Your task to perform on an android device: turn on bluetooth scan Image 0: 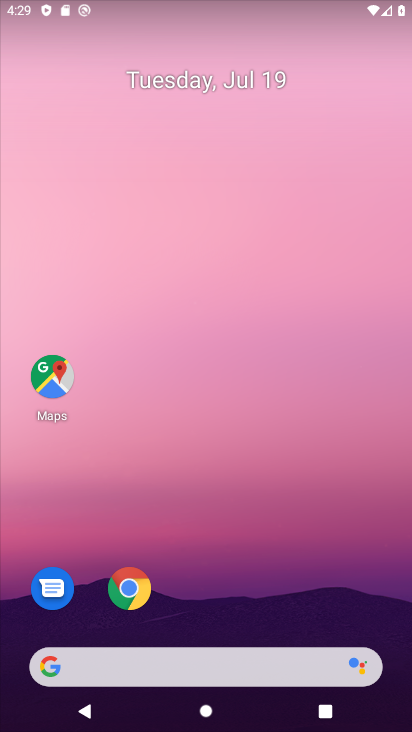
Step 0: drag from (388, 622) to (349, 140)
Your task to perform on an android device: turn on bluetooth scan Image 1: 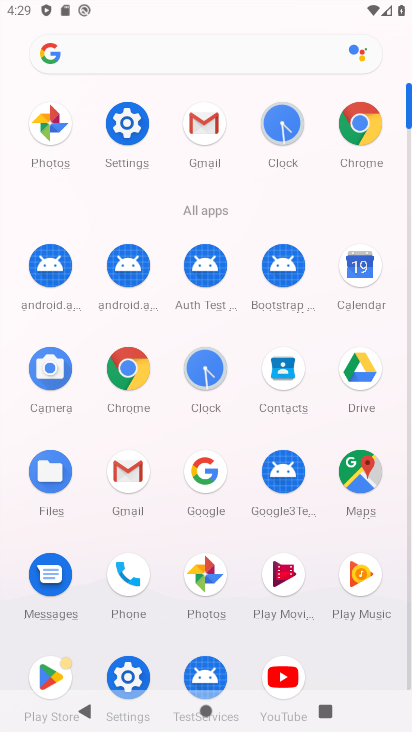
Step 1: click (409, 667)
Your task to perform on an android device: turn on bluetooth scan Image 2: 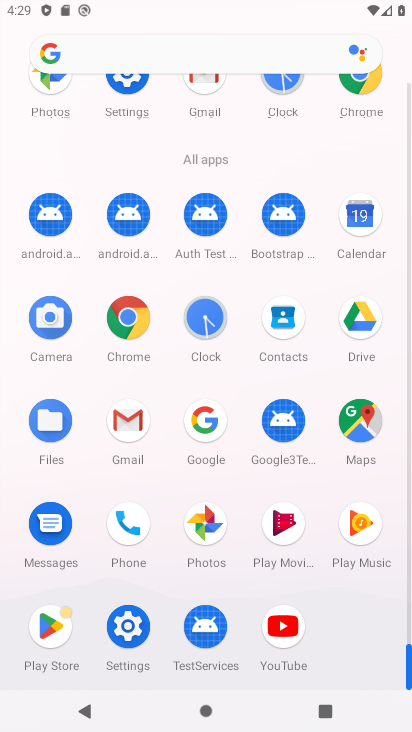
Step 2: click (130, 626)
Your task to perform on an android device: turn on bluetooth scan Image 3: 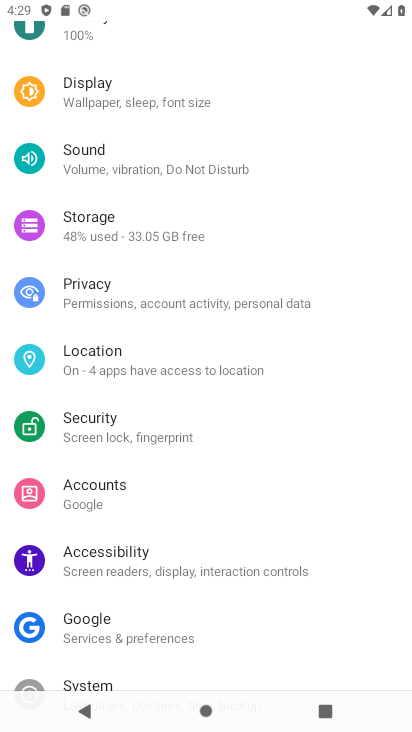
Step 3: click (88, 349)
Your task to perform on an android device: turn on bluetooth scan Image 4: 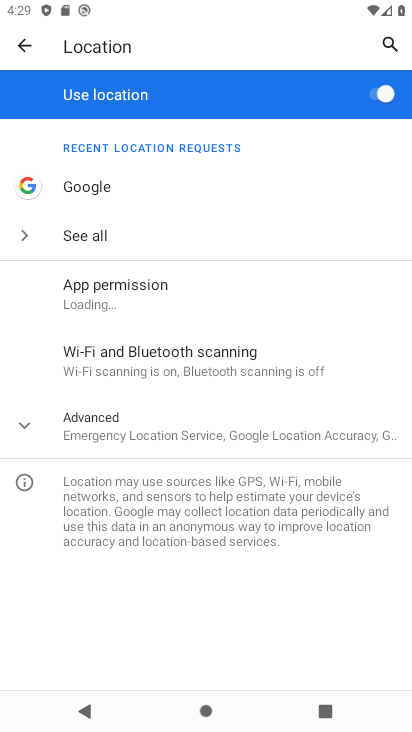
Step 4: click (151, 353)
Your task to perform on an android device: turn on bluetooth scan Image 5: 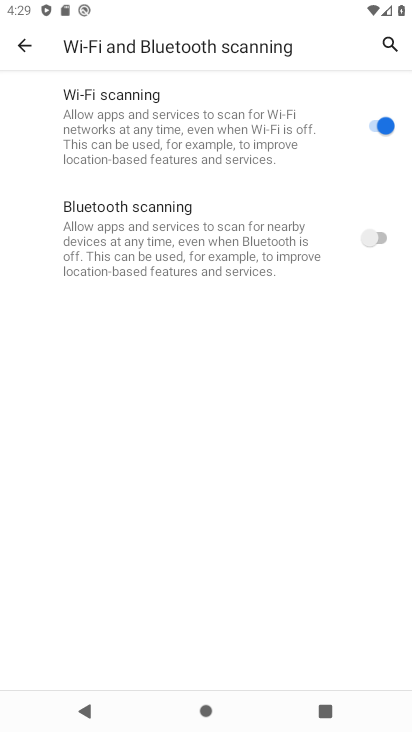
Step 5: click (383, 237)
Your task to perform on an android device: turn on bluetooth scan Image 6: 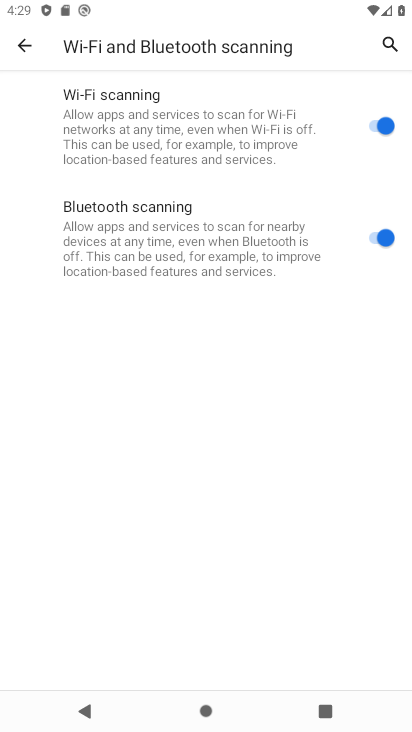
Step 6: task complete